Your task to perform on an android device: Go to ESPN.com Image 0: 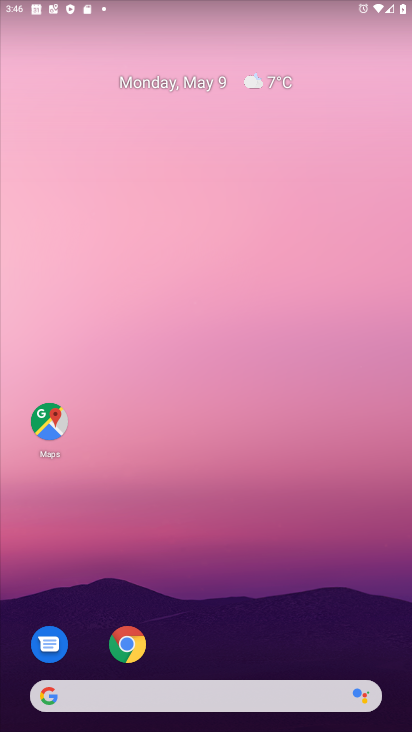
Step 0: drag from (303, 634) to (214, 7)
Your task to perform on an android device: Go to ESPN.com Image 1: 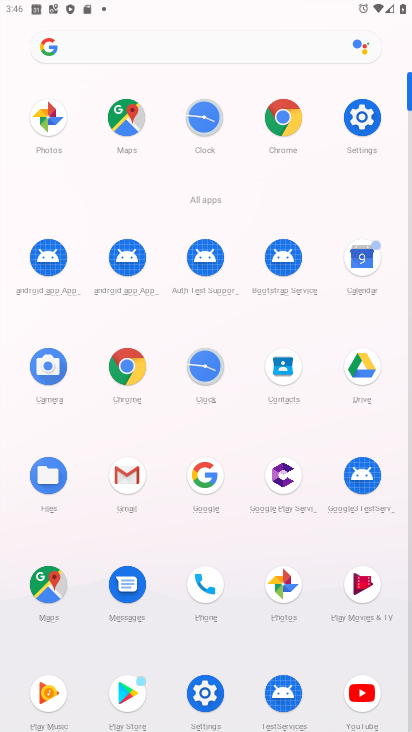
Step 1: click (281, 116)
Your task to perform on an android device: Go to ESPN.com Image 2: 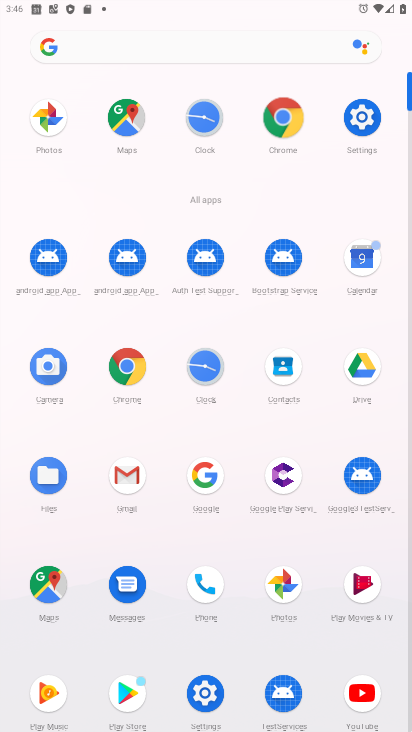
Step 2: click (281, 116)
Your task to perform on an android device: Go to ESPN.com Image 3: 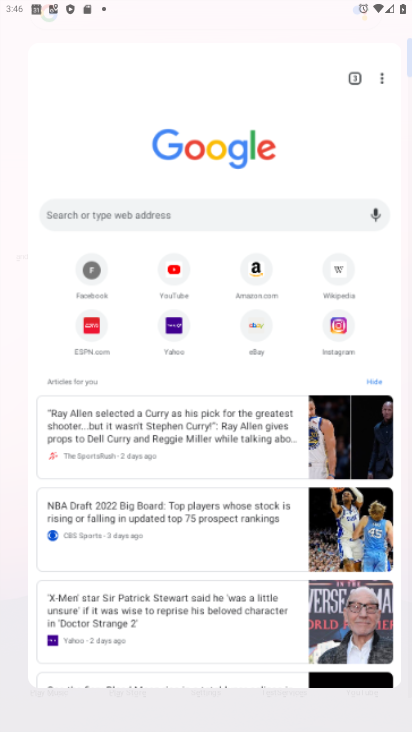
Step 3: click (281, 116)
Your task to perform on an android device: Go to ESPN.com Image 4: 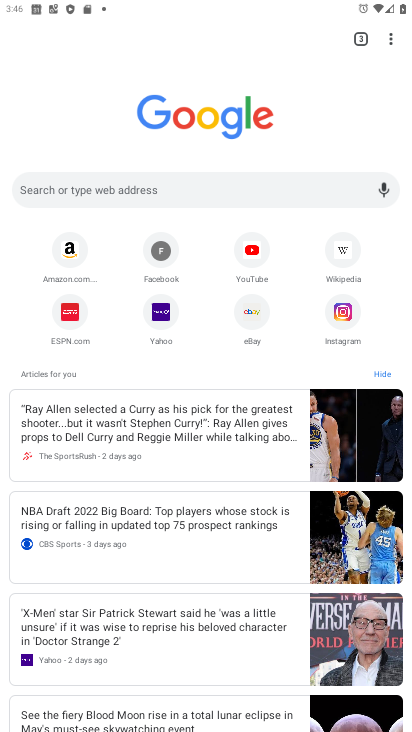
Step 4: click (77, 297)
Your task to perform on an android device: Go to ESPN.com Image 5: 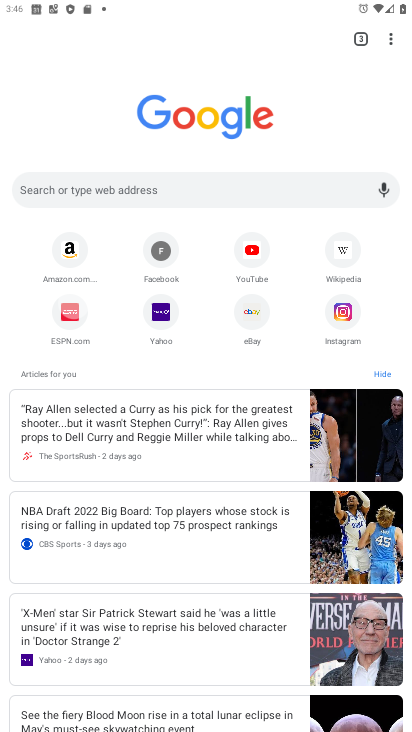
Step 5: click (64, 311)
Your task to perform on an android device: Go to ESPN.com Image 6: 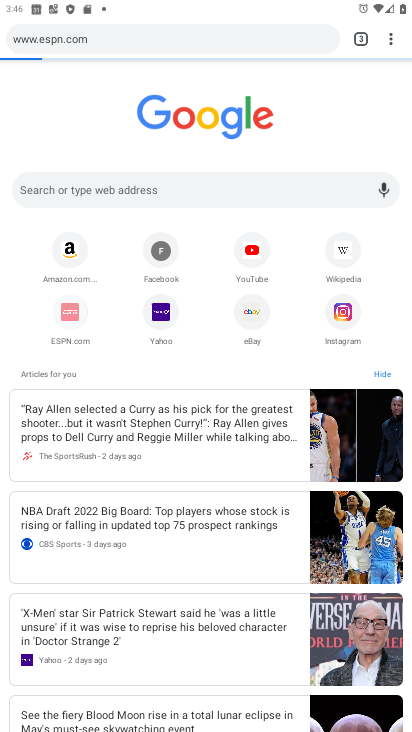
Step 6: click (64, 311)
Your task to perform on an android device: Go to ESPN.com Image 7: 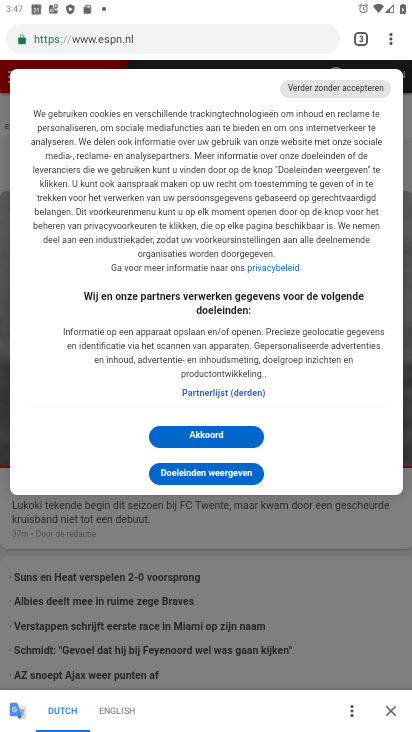
Step 7: task complete